Your task to perform on an android device: Search for Mexican restaurants on Maps Image 0: 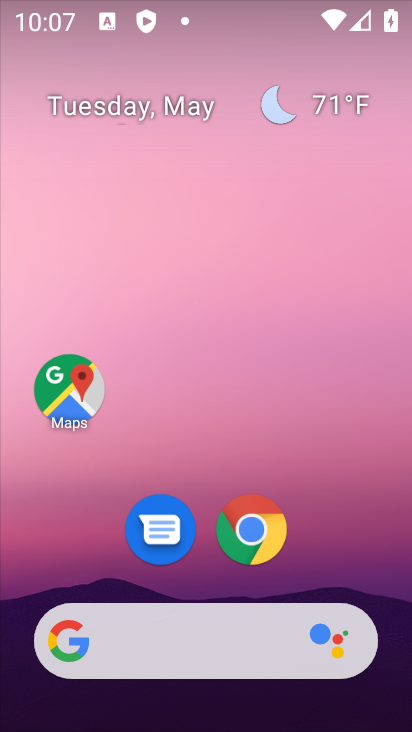
Step 0: drag from (344, 600) to (322, 309)
Your task to perform on an android device: Search for Mexican restaurants on Maps Image 1: 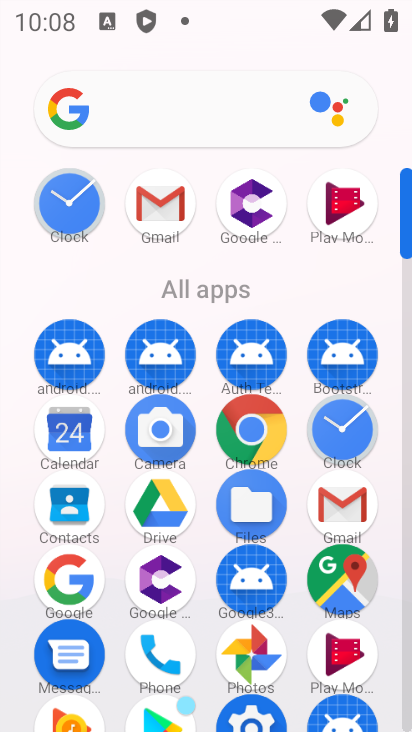
Step 1: click (359, 587)
Your task to perform on an android device: Search for Mexican restaurants on Maps Image 2: 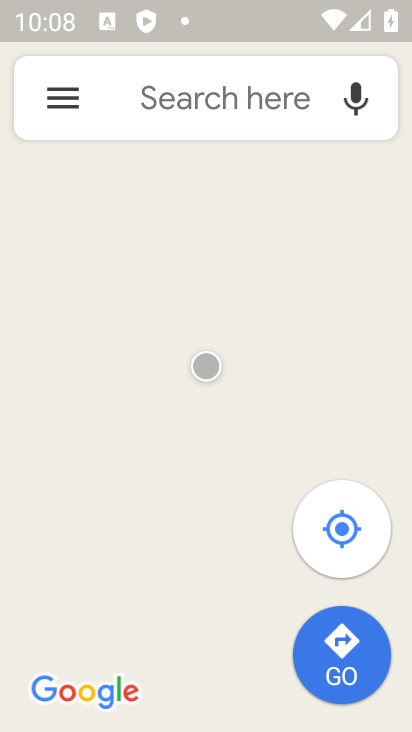
Step 2: click (264, 112)
Your task to perform on an android device: Search for Mexican restaurants on Maps Image 3: 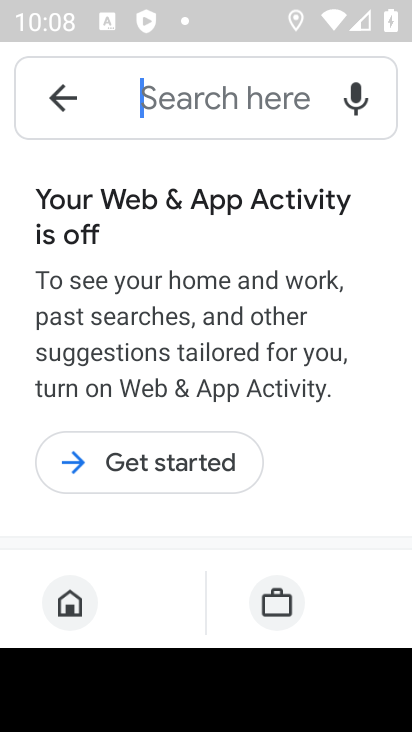
Step 3: drag from (358, 543) to (355, 299)
Your task to perform on an android device: Search for Mexican restaurants on Maps Image 4: 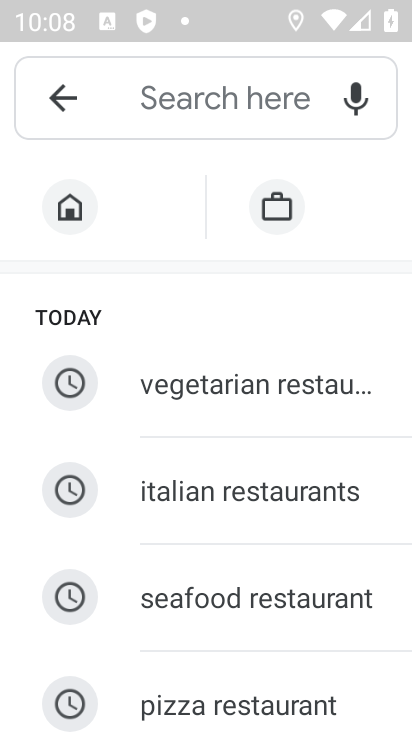
Step 4: drag from (249, 540) to (244, 325)
Your task to perform on an android device: Search for Mexican restaurants on Maps Image 5: 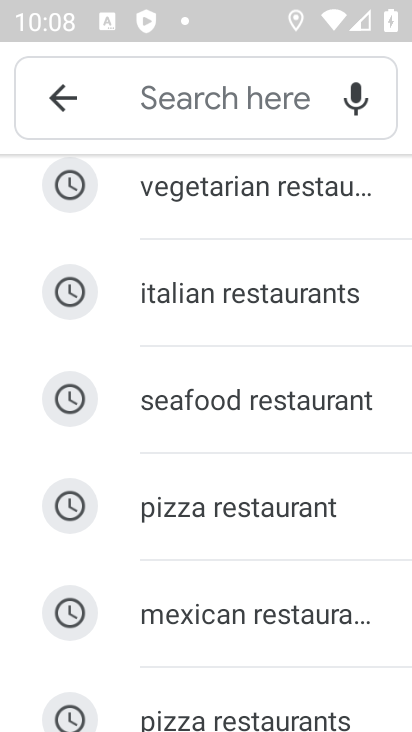
Step 5: drag from (197, 558) to (186, 454)
Your task to perform on an android device: Search for Mexican restaurants on Maps Image 6: 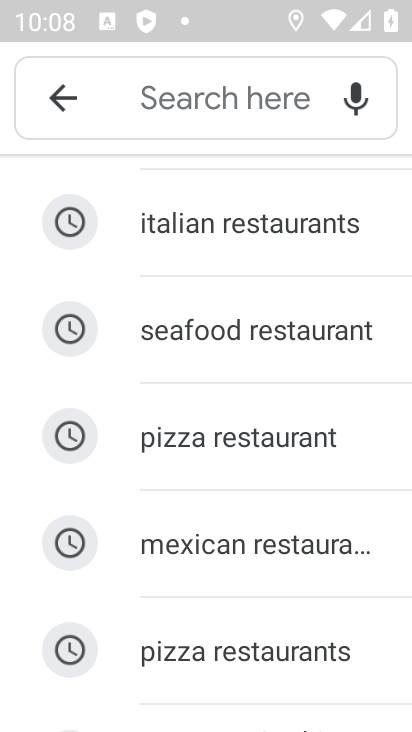
Step 6: click (248, 547)
Your task to perform on an android device: Search for Mexican restaurants on Maps Image 7: 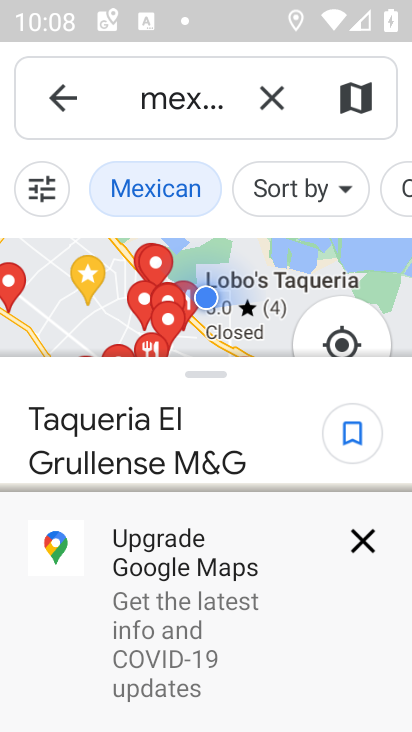
Step 7: task complete